Your task to perform on an android device: Open the calendar app, open the side menu, and click the "Day" option Image 0: 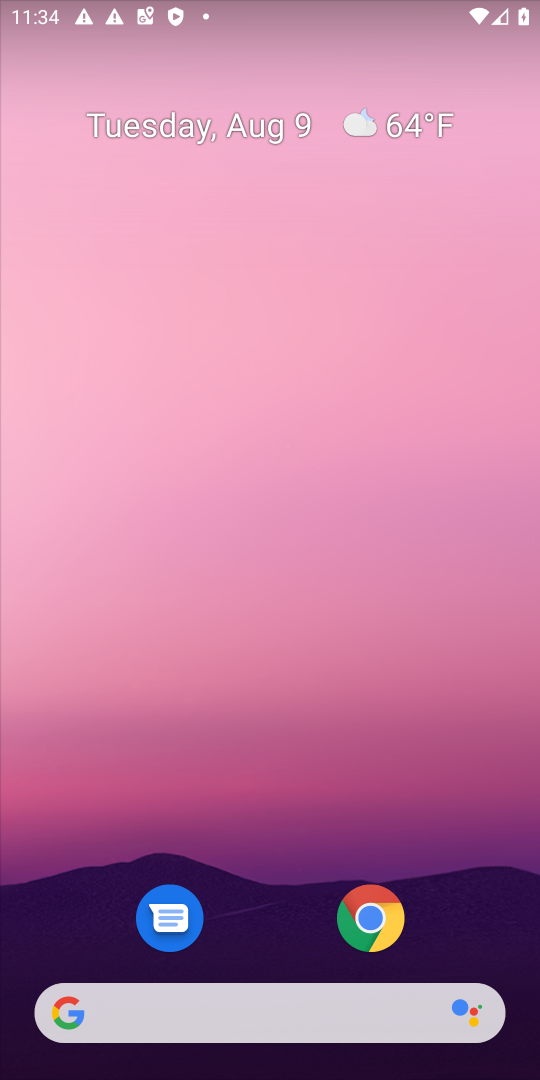
Step 0: drag from (255, 888) to (250, 277)
Your task to perform on an android device: Open the calendar app, open the side menu, and click the "Day" option Image 1: 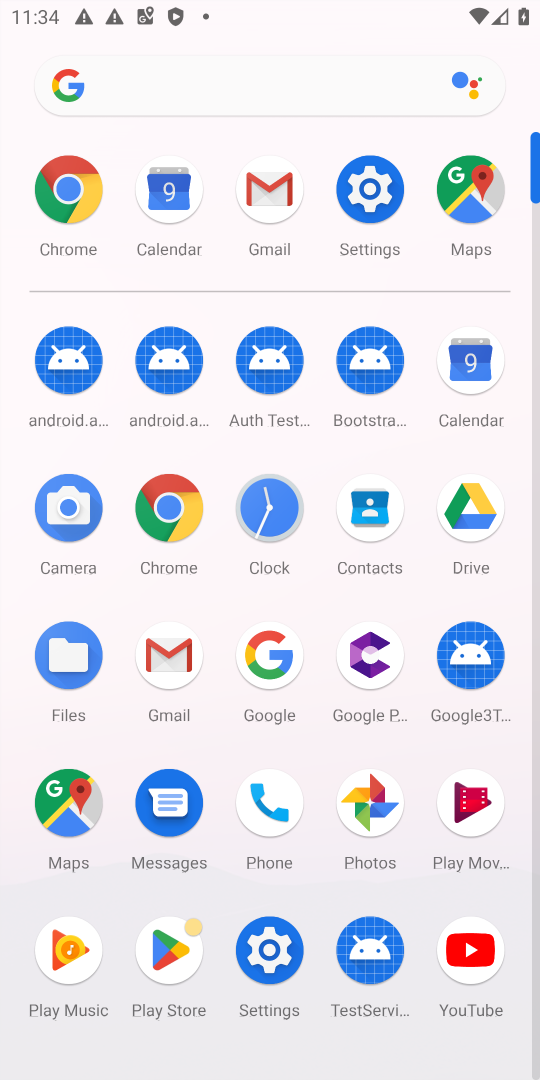
Step 1: click (478, 364)
Your task to perform on an android device: Open the calendar app, open the side menu, and click the "Day" option Image 2: 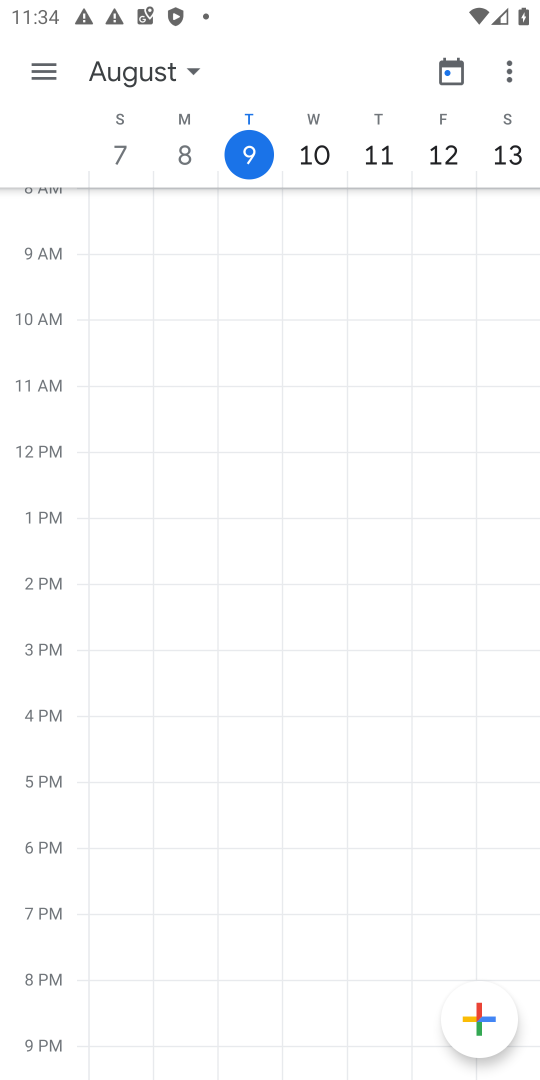
Step 2: click (44, 72)
Your task to perform on an android device: Open the calendar app, open the side menu, and click the "Day" option Image 3: 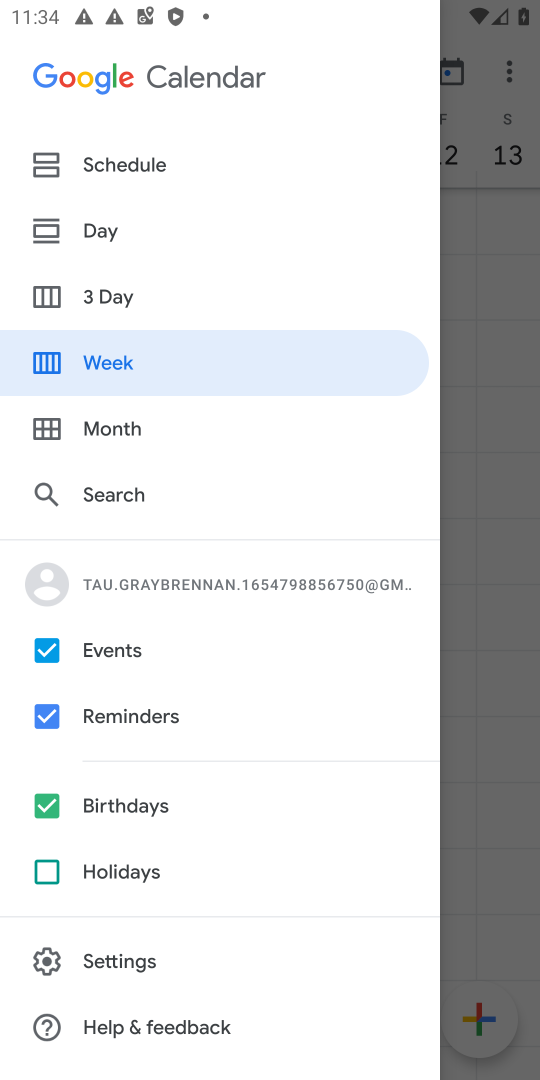
Step 3: click (78, 211)
Your task to perform on an android device: Open the calendar app, open the side menu, and click the "Day" option Image 4: 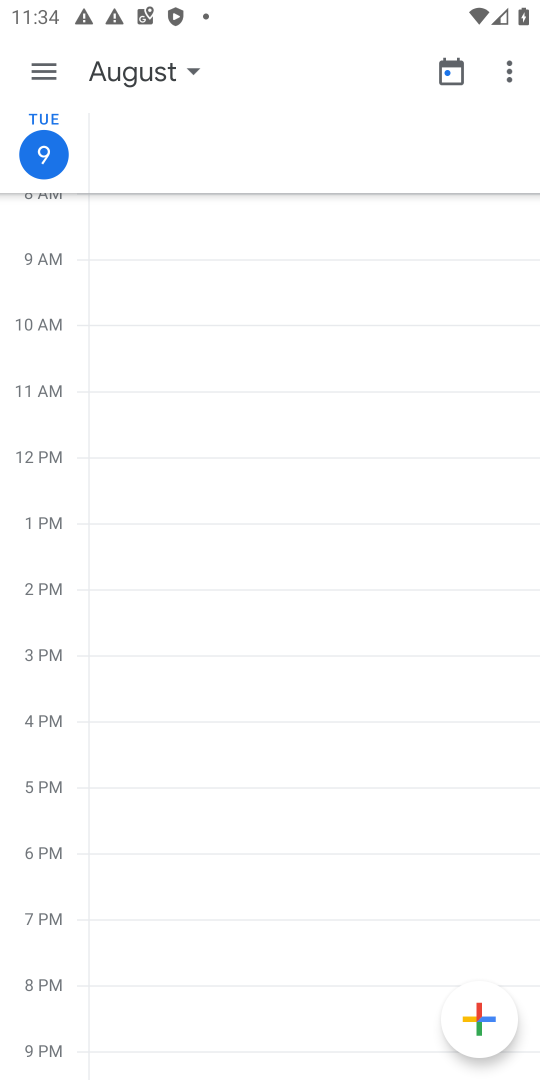
Step 4: task complete